Your task to perform on an android device: What's the weather like in Moscow? Image 0: 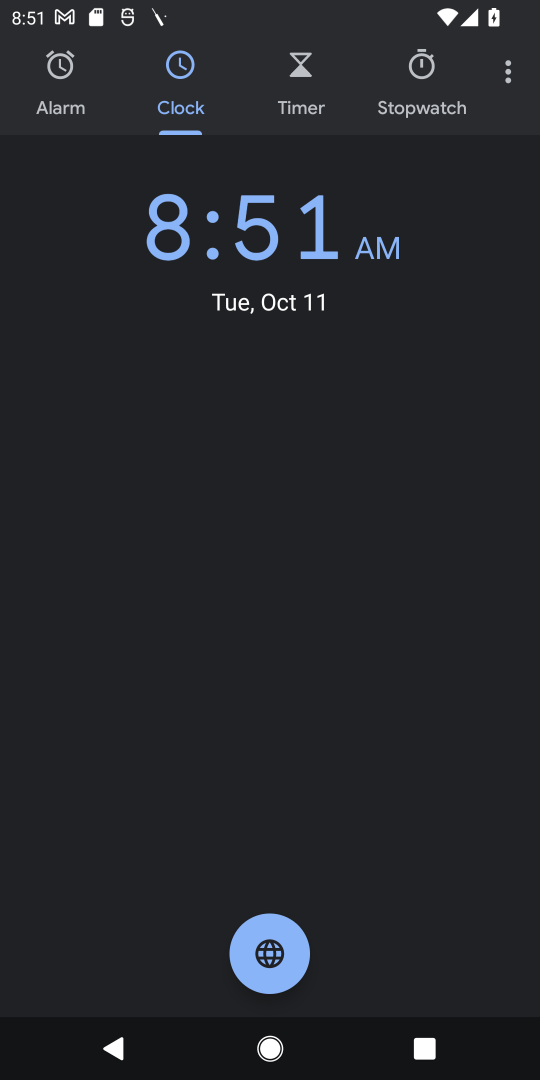
Step 0: press home button
Your task to perform on an android device: What's the weather like in Moscow? Image 1: 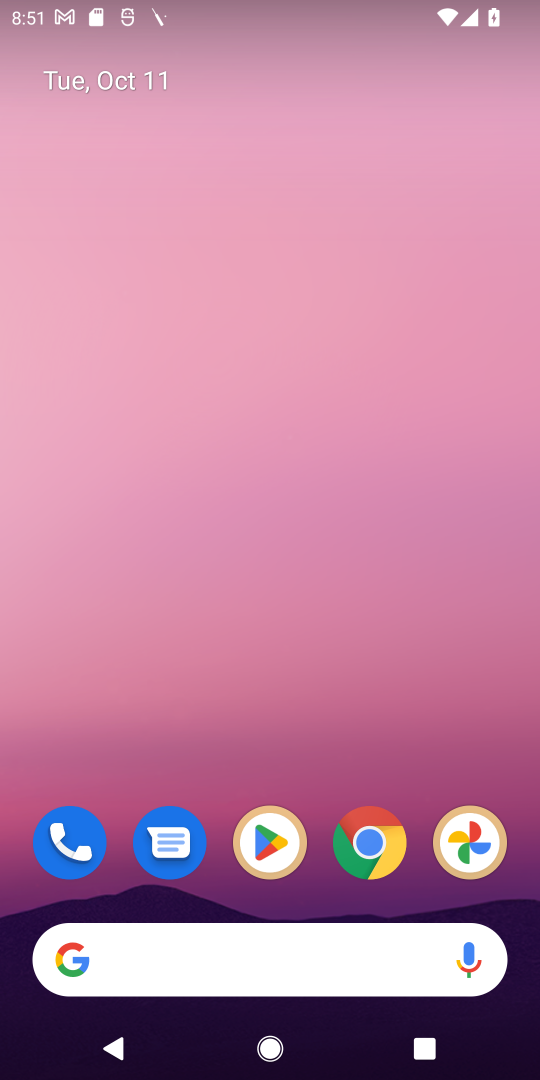
Step 1: click (378, 843)
Your task to perform on an android device: What's the weather like in Moscow? Image 2: 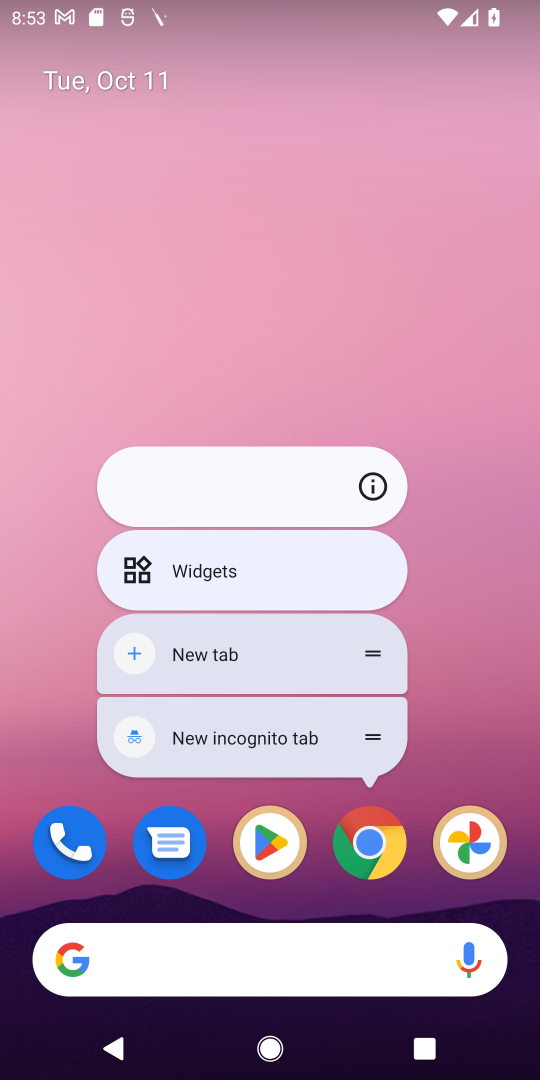
Step 2: click (393, 845)
Your task to perform on an android device: What's the weather like in Moscow? Image 3: 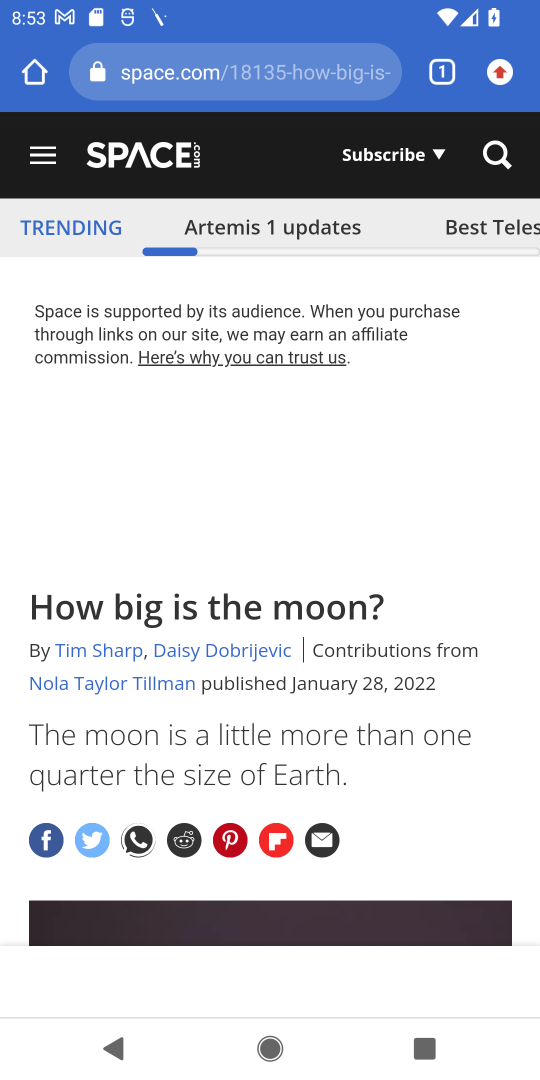
Step 3: click (183, 78)
Your task to perform on an android device: What's the weather like in Moscow? Image 4: 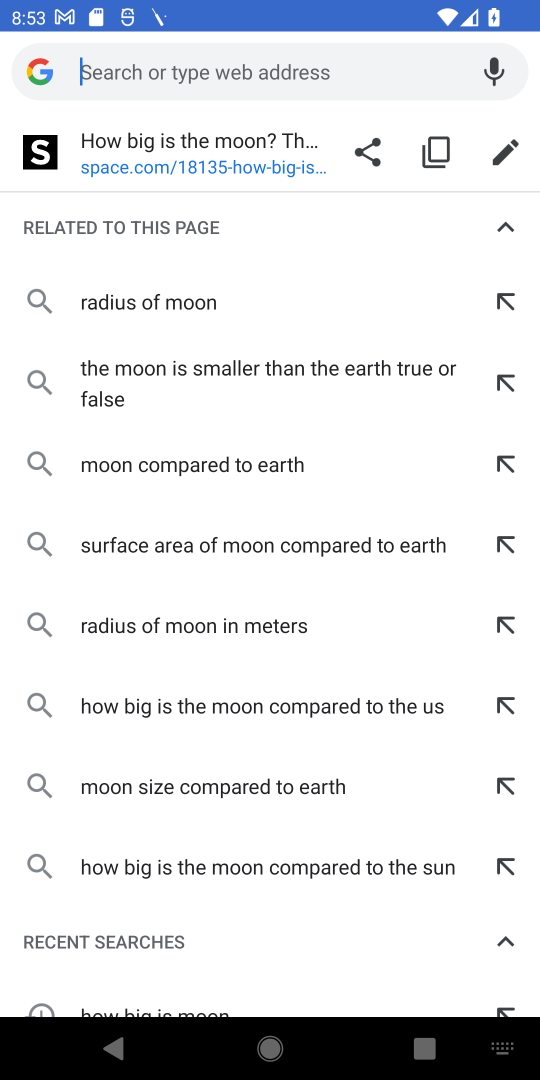
Step 4: type "weather like in moscow"
Your task to perform on an android device: What's the weather like in Moscow? Image 5: 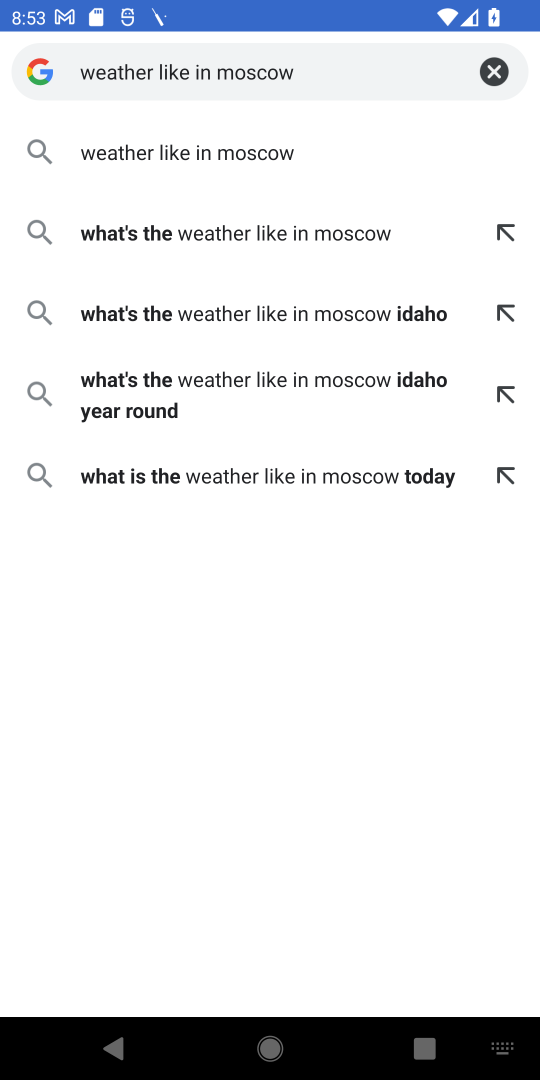
Step 5: click (220, 161)
Your task to perform on an android device: What's the weather like in Moscow? Image 6: 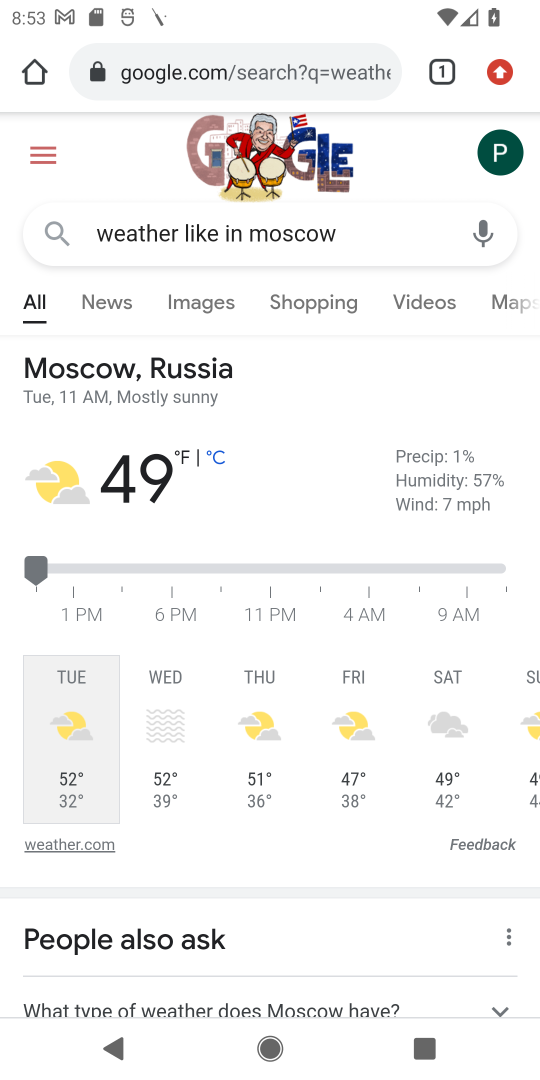
Step 6: task complete